Your task to perform on an android device: Go to Android settings Image 0: 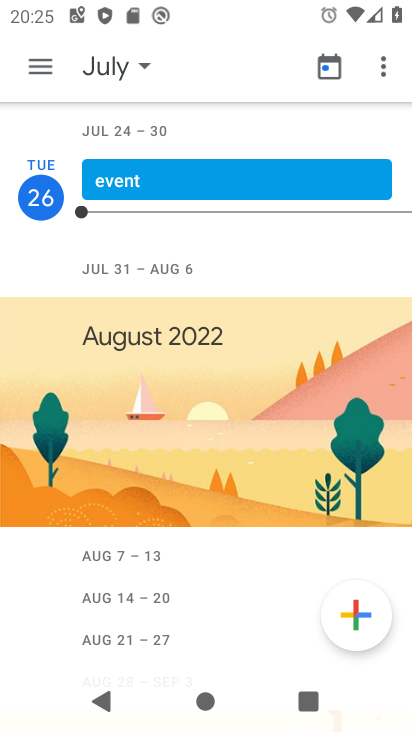
Step 0: press home button
Your task to perform on an android device: Go to Android settings Image 1: 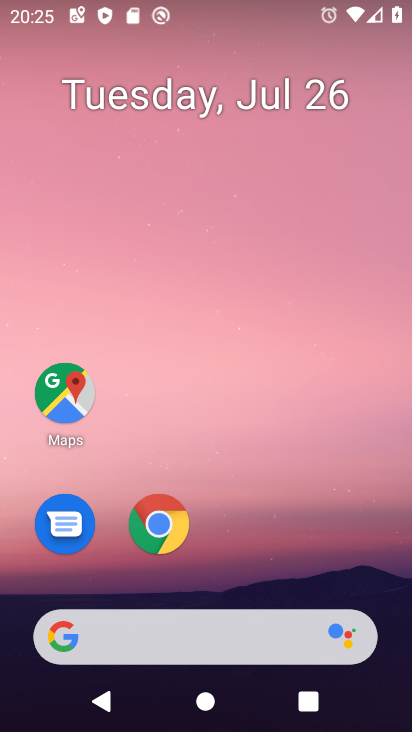
Step 1: drag from (325, 526) to (282, 0)
Your task to perform on an android device: Go to Android settings Image 2: 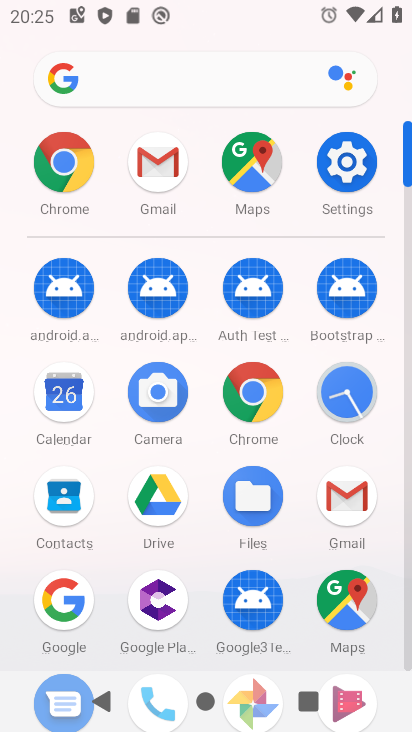
Step 2: click (349, 164)
Your task to perform on an android device: Go to Android settings Image 3: 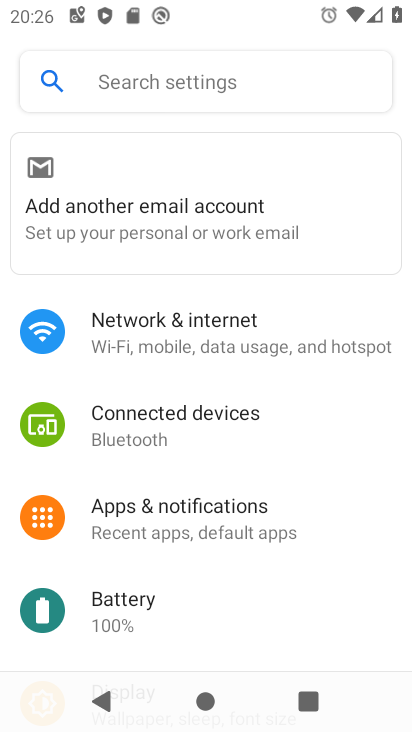
Step 3: drag from (241, 577) to (250, 0)
Your task to perform on an android device: Go to Android settings Image 4: 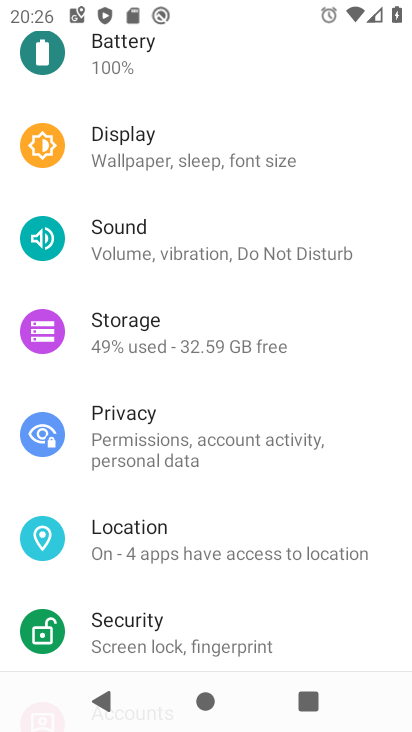
Step 4: drag from (230, 500) to (219, 1)
Your task to perform on an android device: Go to Android settings Image 5: 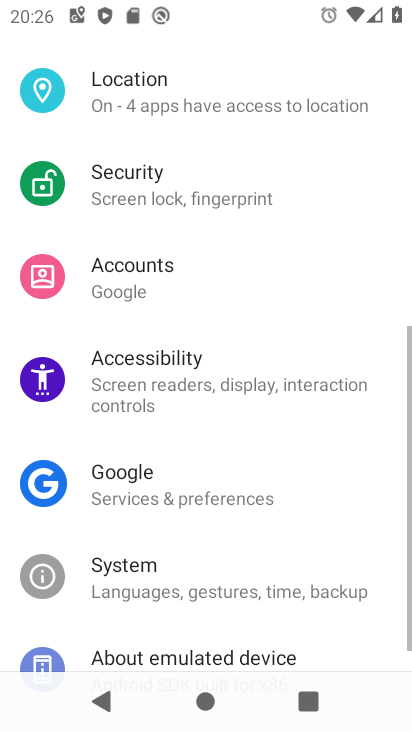
Step 5: drag from (263, 449) to (243, 102)
Your task to perform on an android device: Go to Android settings Image 6: 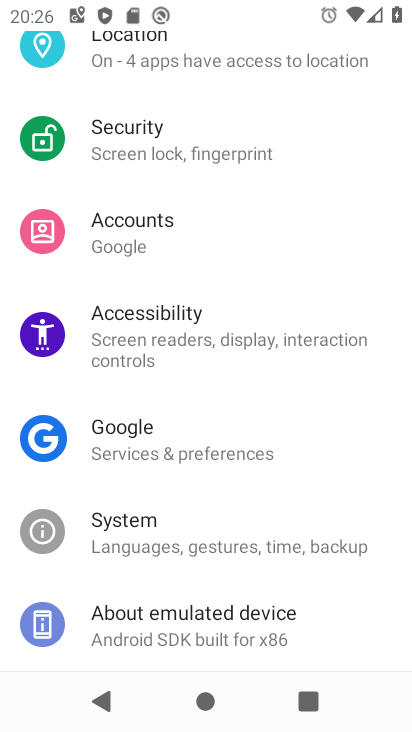
Step 6: click (226, 620)
Your task to perform on an android device: Go to Android settings Image 7: 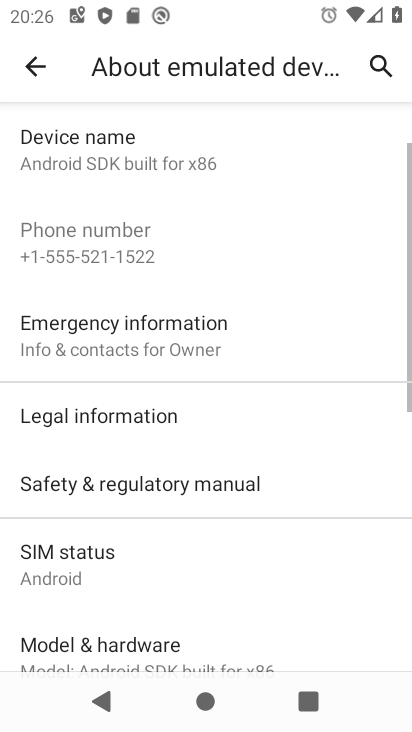
Step 7: task complete